Your task to perform on an android device: change notification settings in the gmail app Image 0: 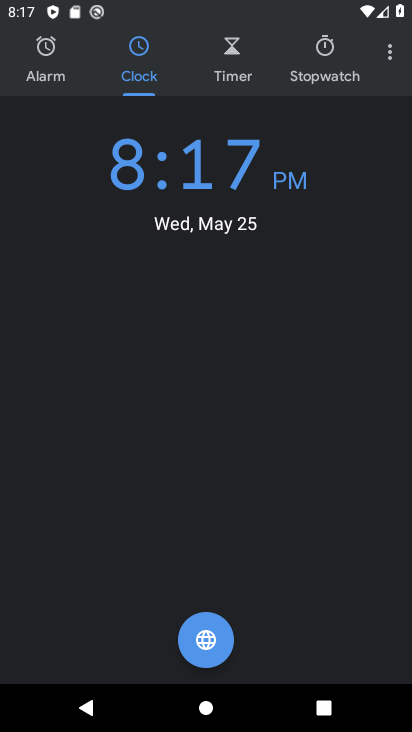
Step 0: press home button
Your task to perform on an android device: change notification settings in the gmail app Image 1: 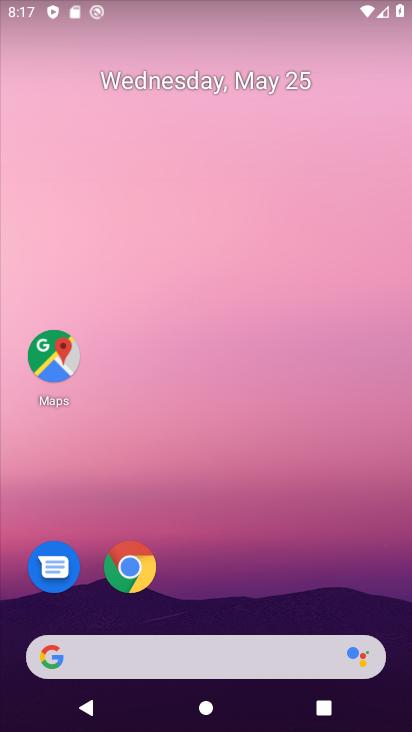
Step 1: drag from (252, 561) to (249, 38)
Your task to perform on an android device: change notification settings in the gmail app Image 2: 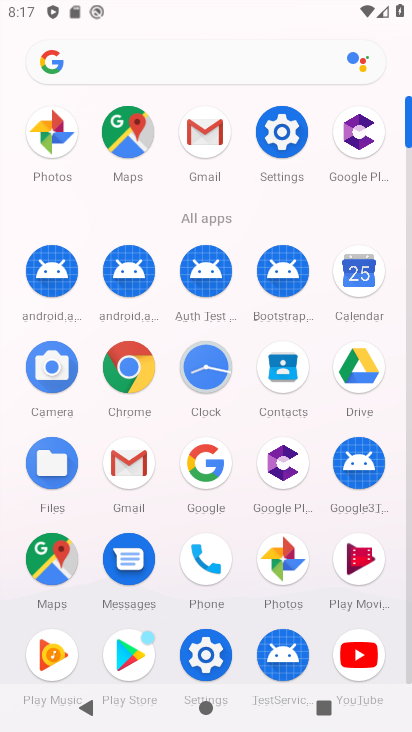
Step 2: click (201, 124)
Your task to perform on an android device: change notification settings in the gmail app Image 3: 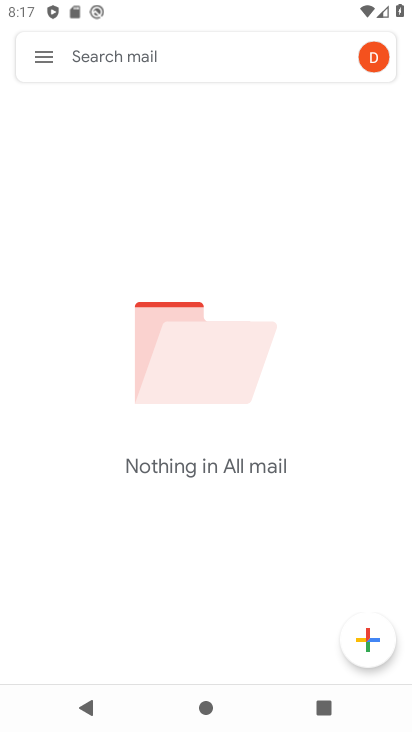
Step 3: click (48, 56)
Your task to perform on an android device: change notification settings in the gmail app Image 4: 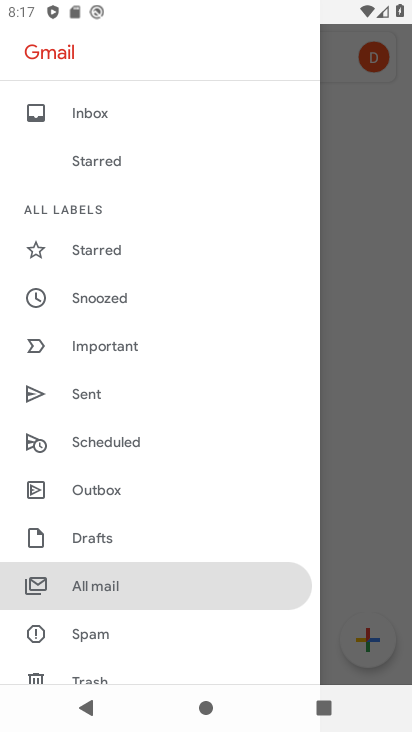
Step 4: drag from (150, 615) to (178, 313)
Your task to perform on an android device: change notification settings in the gmail app Image 5: 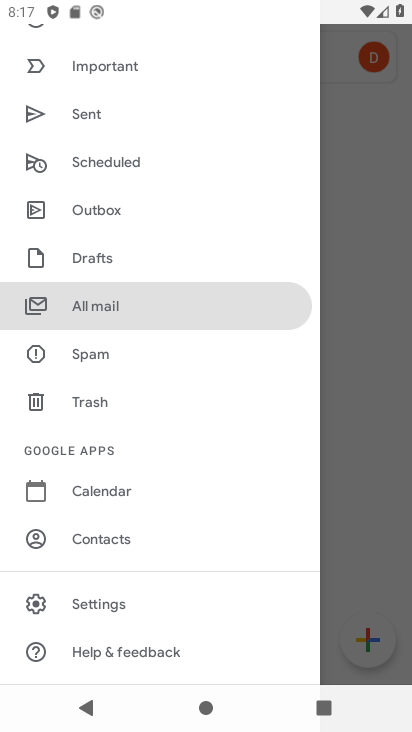
Step 5: click (123, 602)
Your task to perform on an android device: change notification settings in the gmail app Image 6: 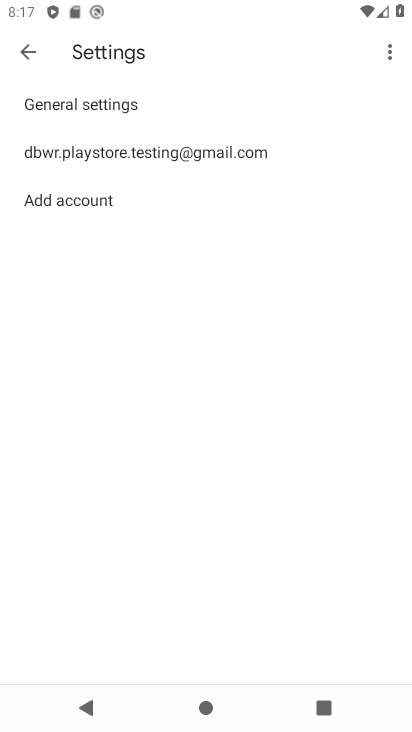
Step 6: click (196, 145)
Your task to perform on an android device: change notification settings in the gmail app Image 7: 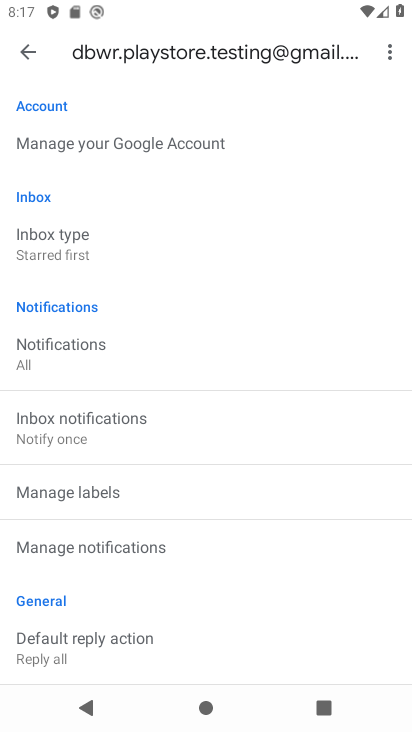
Step 7: click (134, 548)
Your task to perform on an android device: change notification settings in the gmail app Image 8: 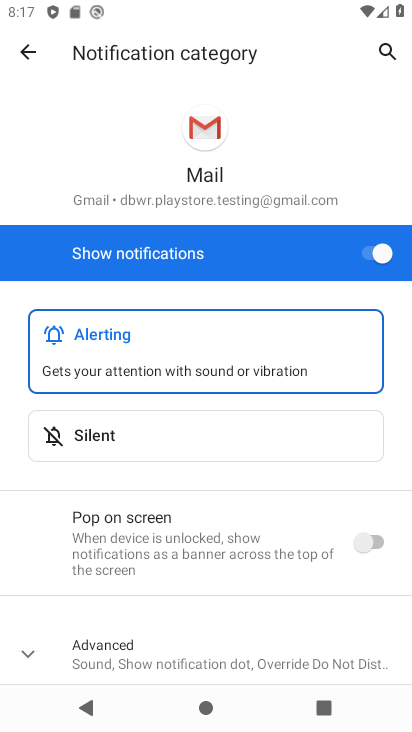
Step 8: click (375, 247)
Your task to perform on an android device: change notification settings in the gmail app Image 9: 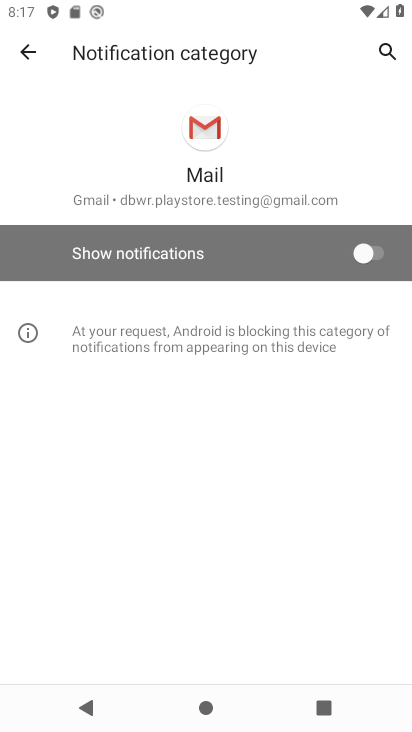
Step 9: task complete